Your task to perform on an android device: Open battery settings Image 0: 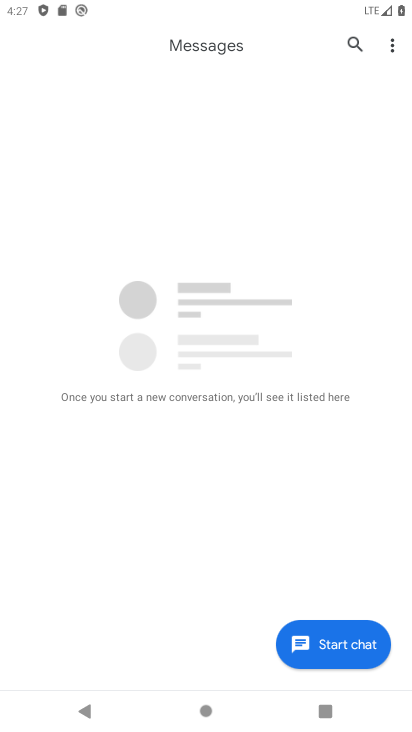
Step 0: press back button
Your task to perform on an android device: Open battery settings Image 1: 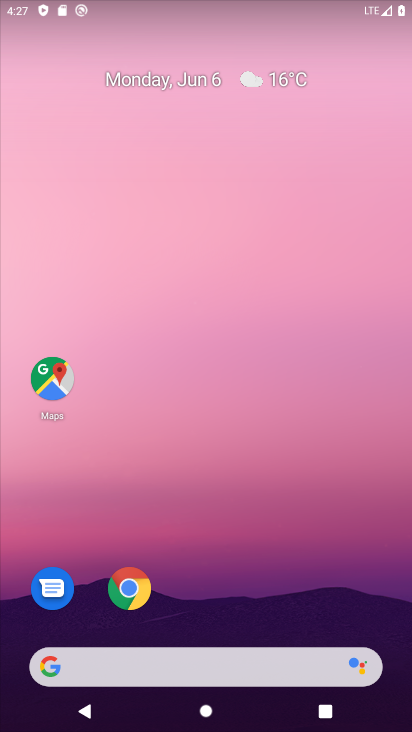
Step 1: drag from (235, 694) to (179, 135)
Your task to perform on an android device: Open battery settings Image 2: 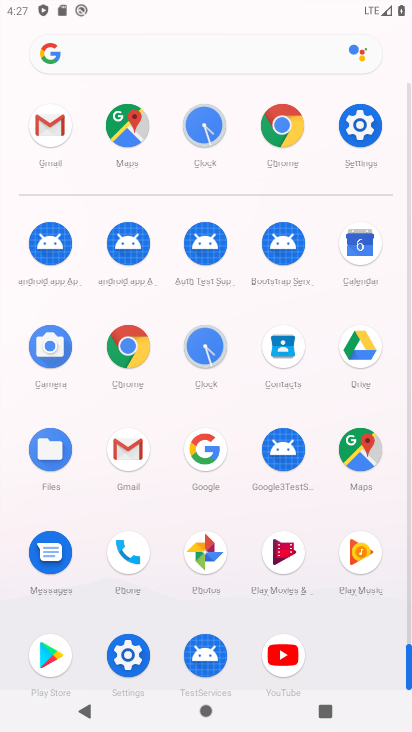
Step 2: click (362, 116)
Your task to perform on an android device: Open battery settings Image 3: 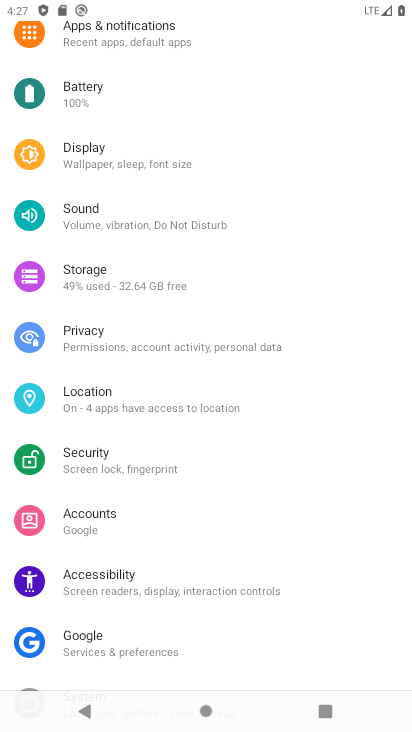
Step 3: click (73, 100)
Your task to perform on an android device: Open battery settings Image 4: 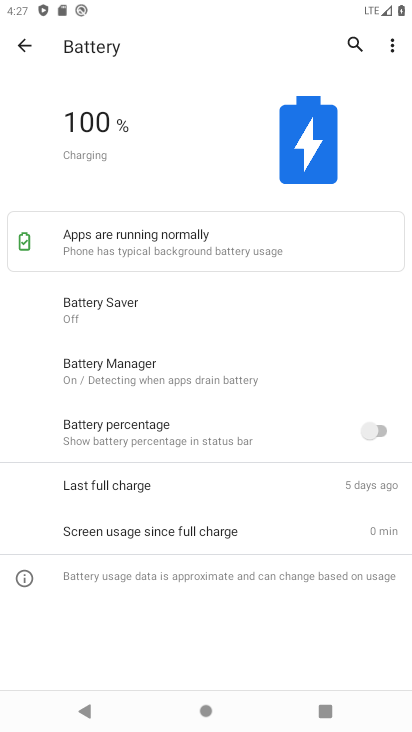
Step 4: task complete